Your task to perform on an android device: Open the map Image 0: 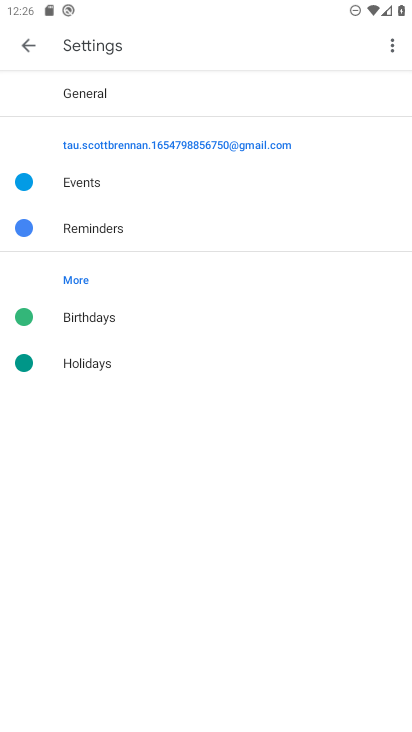
Step 0: press home button
Your task to perform on an android device: Open the map Image 1: 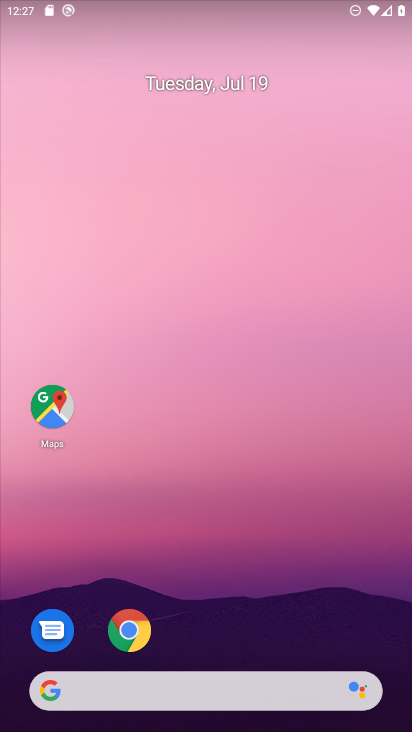
Step 1: click (60, 405)
Your task to perform on an android device: Open the map Image 2: 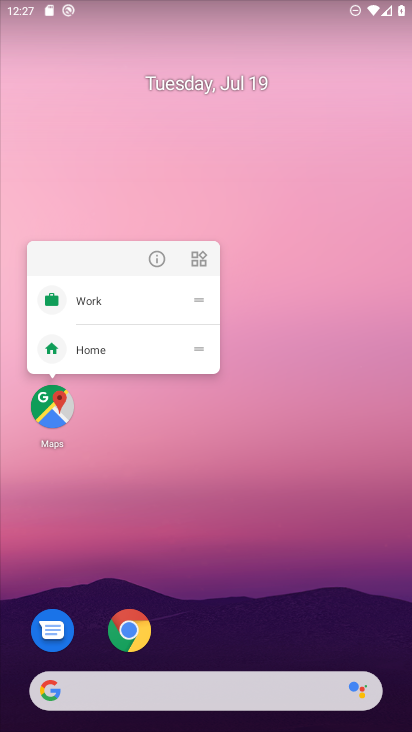
Step 2: click (59, 417)
Your task to perform on an android device: Open the map Image 3: 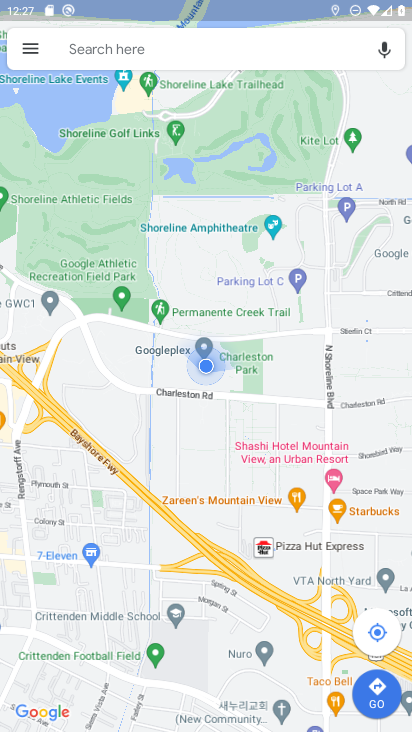
Step 3: task complete